Your task to perform on an android device: Go to CNN.com Image 0: 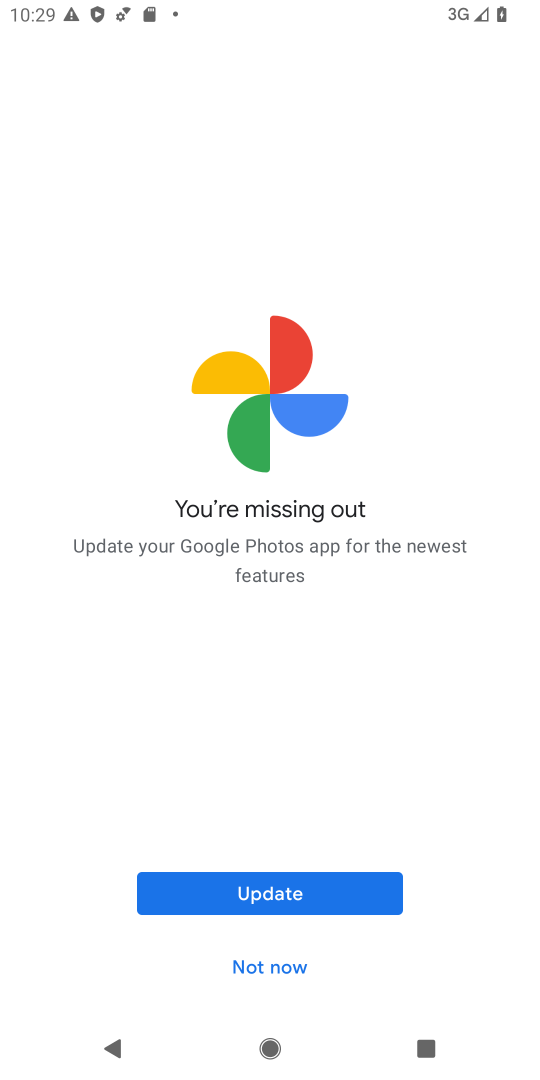
Step 0: press home button
Your task to perform on an android device: Go to CNN.com Image 1: 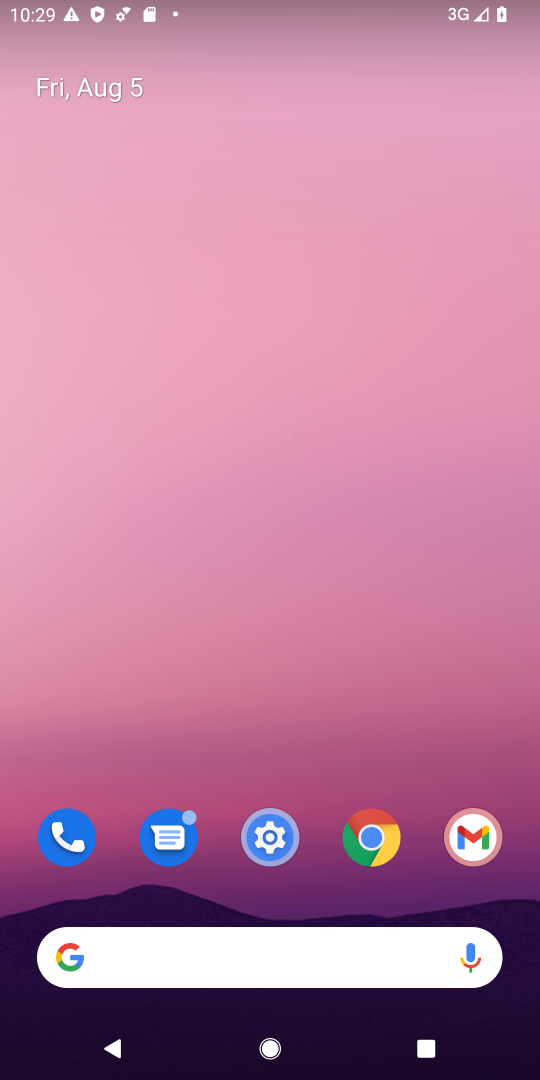
Step 1: click (211, 965)
Your task to perform on an android device: Go to CNN.com Image 2: 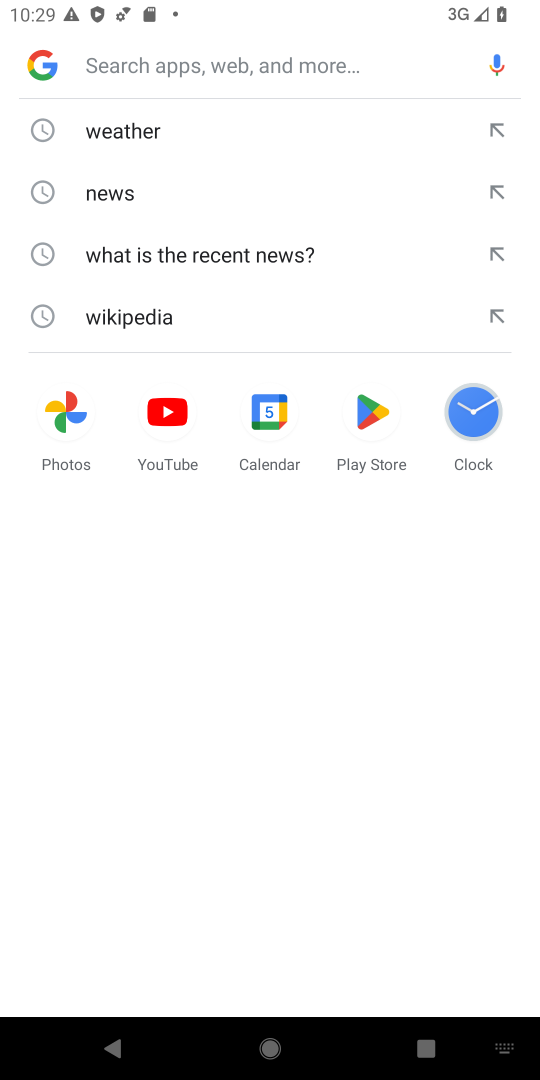
Step 2: press home button
Your task to perform on an android device: Go to CNN.com Image 3: 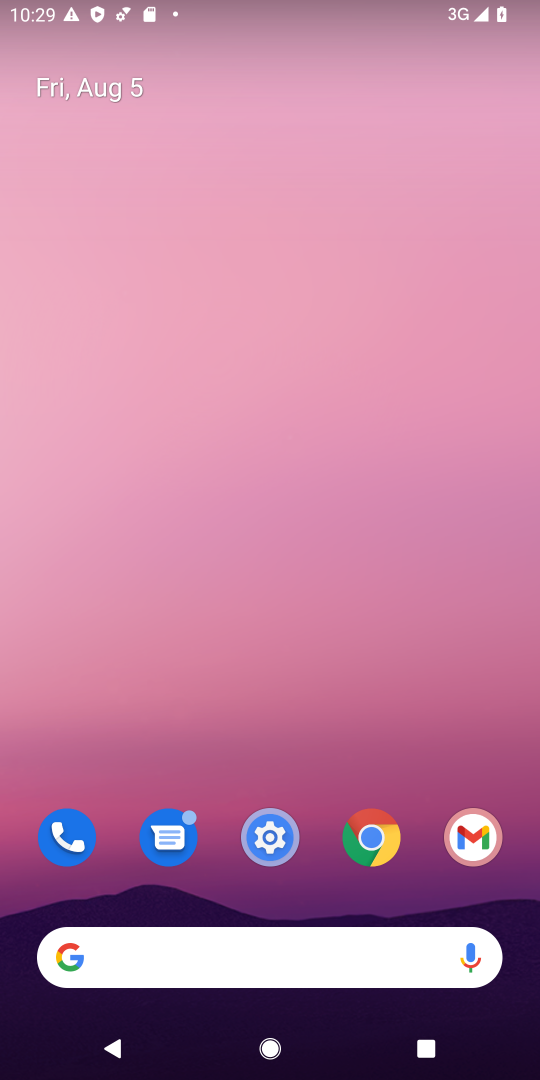
Step 3: click (340, 960)
Your task to perform on an android device: Go to CNN.com Image 4: 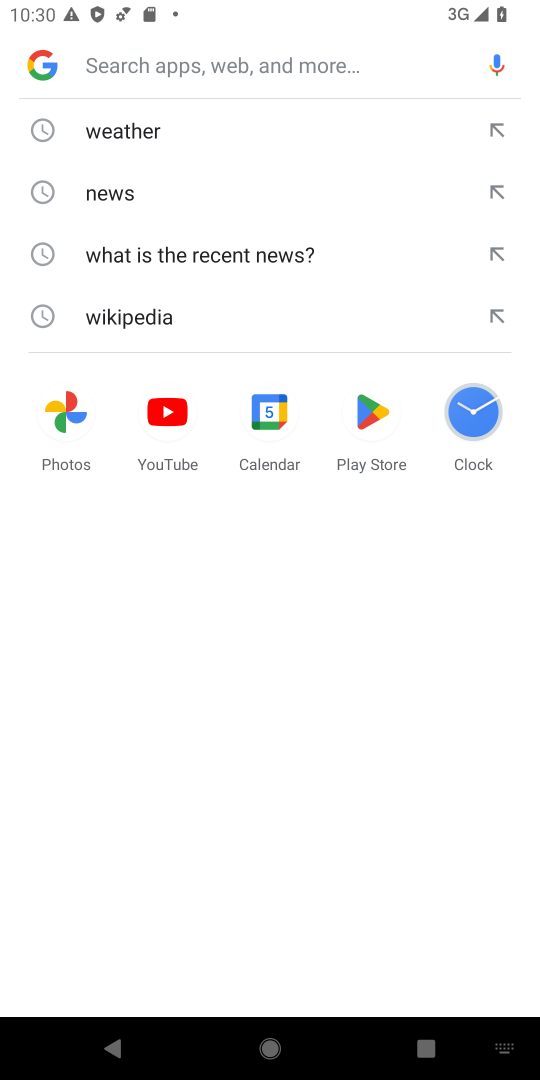
Step 4: type "cnn.com"
Your task to perform on an android device: Go to CNN.com Image 5: 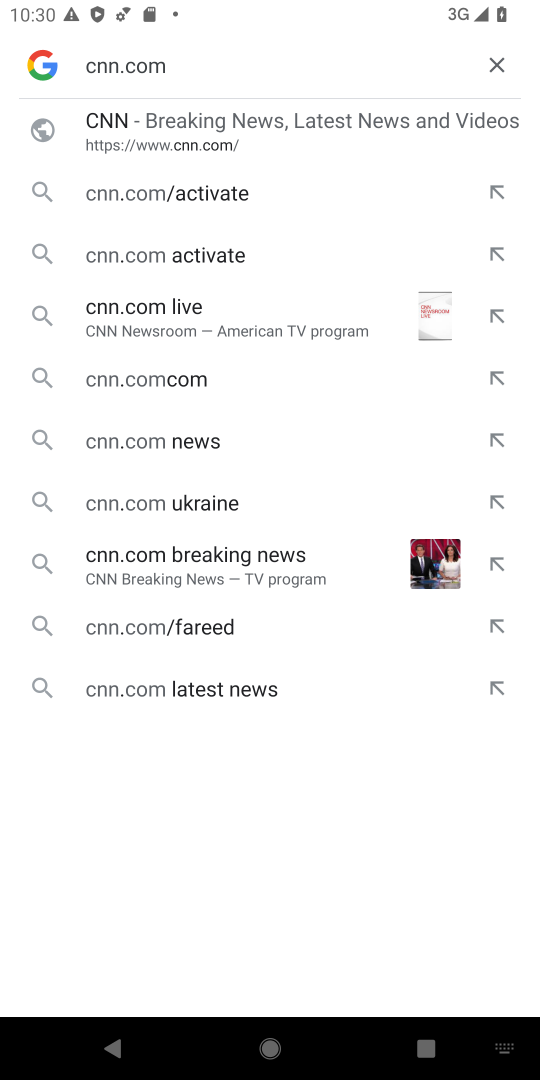
Step 5: click (272, 113)
Your task to perform on an android device: Go to CNN.com Image 6: 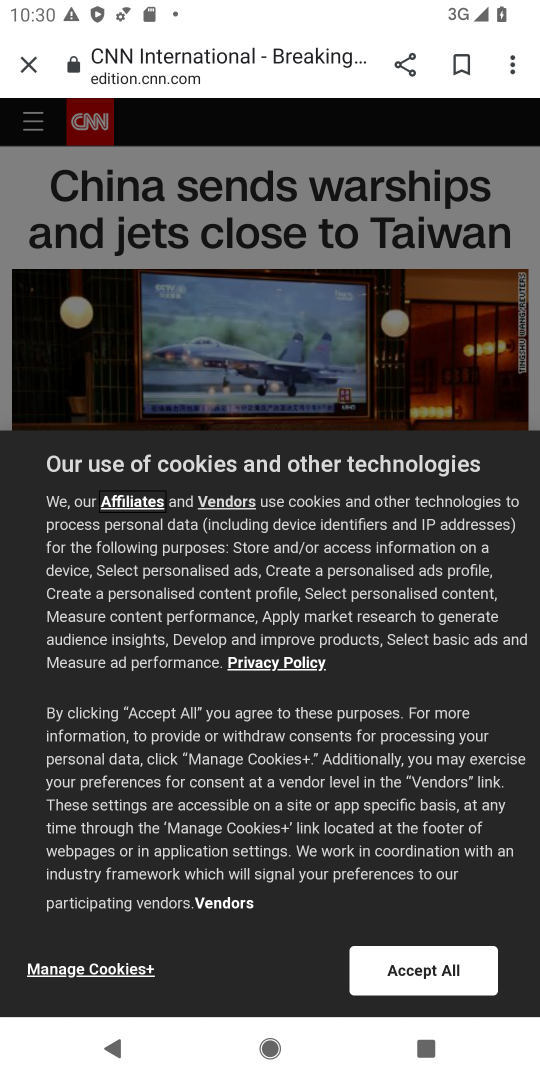
Step 6: click (456, 964)
Your task to perform on an android device: Go to CNN.com Image 7: 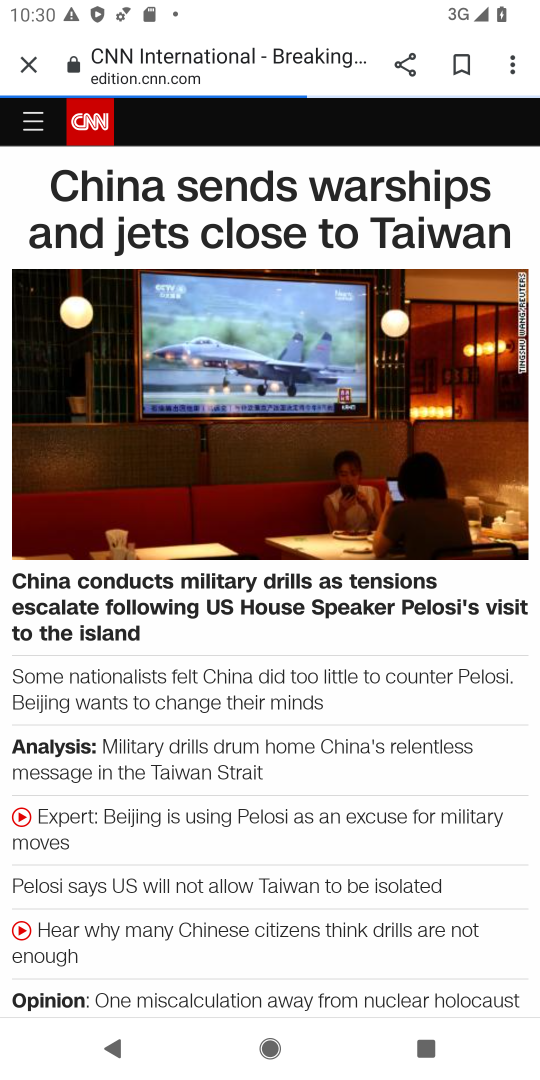
Step 7: task complete